Your task to perform on an android device: Open the stopwatch Image 0: 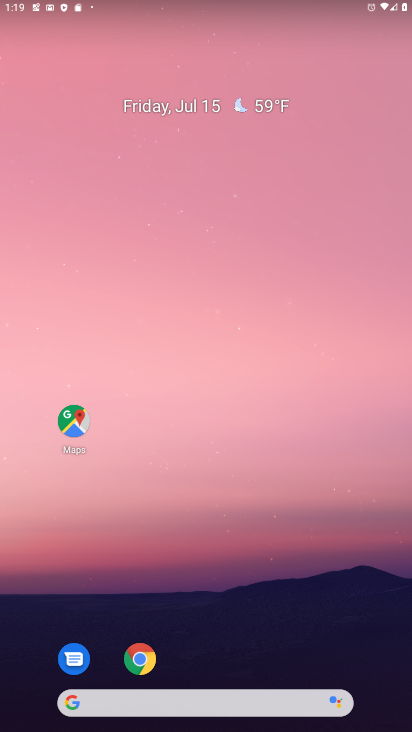
Step 0: drag from (249, 731) to (250, 171)
Your task to perform on an android device: Open the stopwatch Image 1: 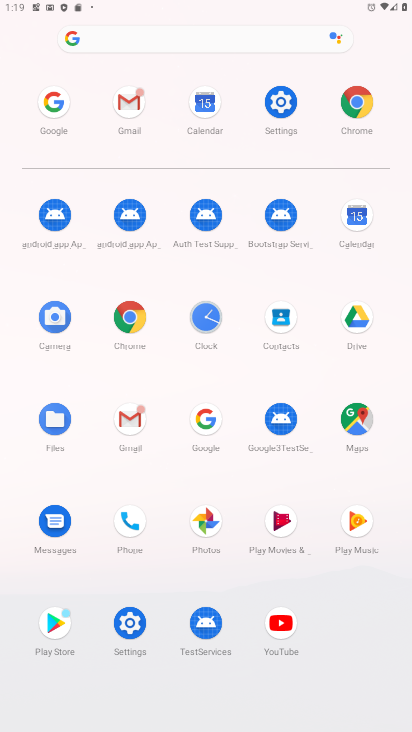
Step 1: click (209, 313)
Your task to perform on an android device: Open the stopwatch Image 2: 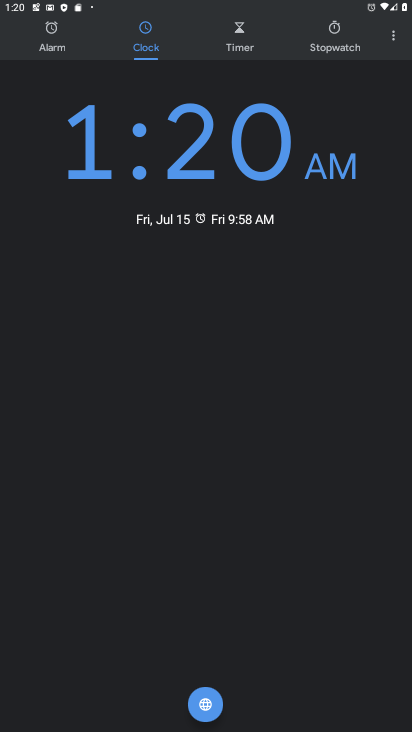
Step 2: click (338, 36)
Your task to perform on an android device: Open the stopwatch Image 3: 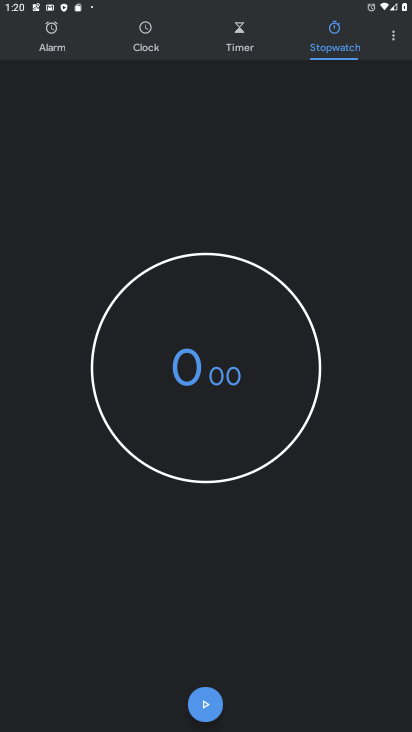
Step 3: task complete